Your task to perform on an android device: Go to battery settings Image 0: 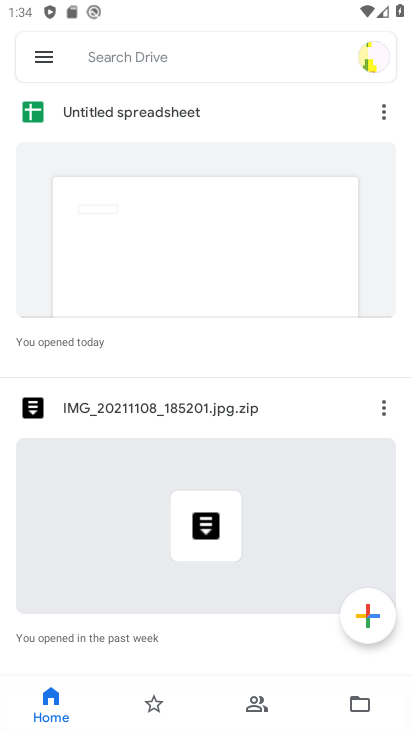
Step 0: press back button
Your task to perform on an android device: Go to battery settings Image 1: 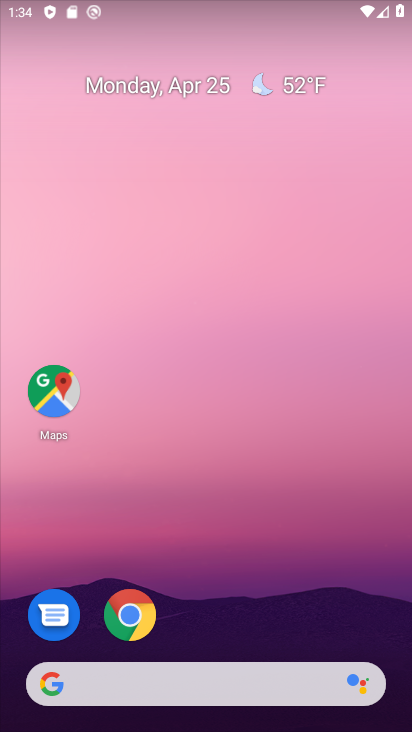
Step 1: drag from (192, 537) to (213, 49)
Your task to perform on an android device: Go to battery settings Image 2: 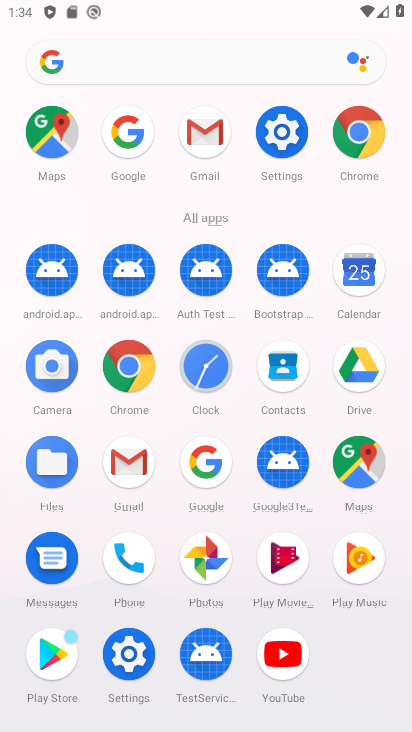
Step 2: click (281, 129)
Your task to perform on an android device: Go to battery settings Image 3: 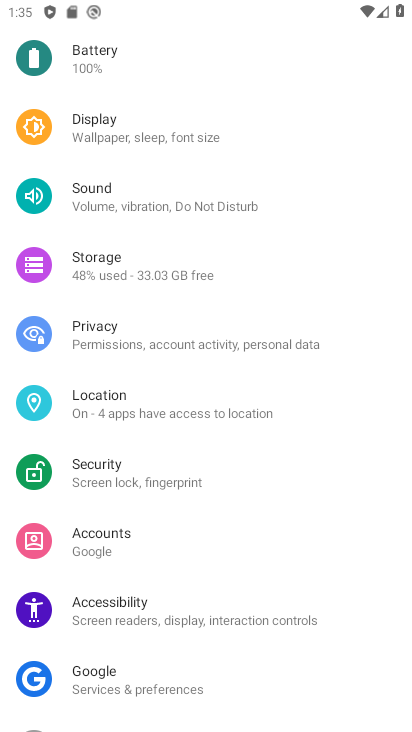
Step 3: drag from (251, 255) to (278, 359)
Your task to perform on an android device: Go to battery settings Image 4: 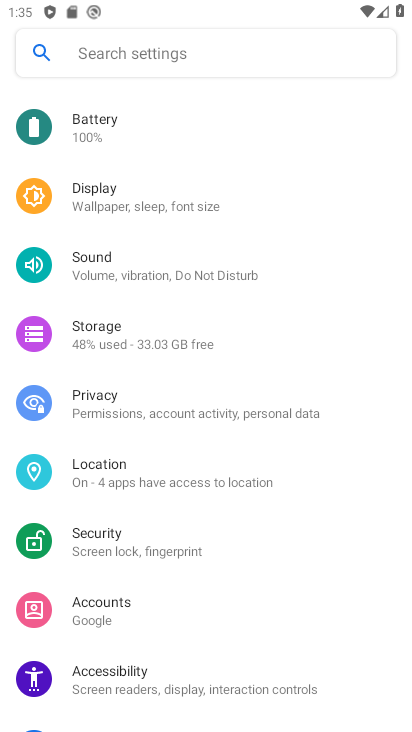
Step 4: drag from (254, 239) to (266, 328)
Your task to perform on an android device: Go to battery settings Image 5: 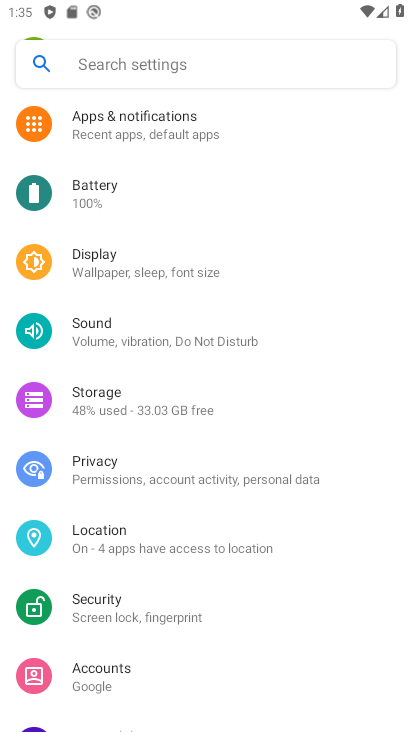
Step 5: click (92, 193)
Your task to perform on an android device: Go to battery settings Image 6: 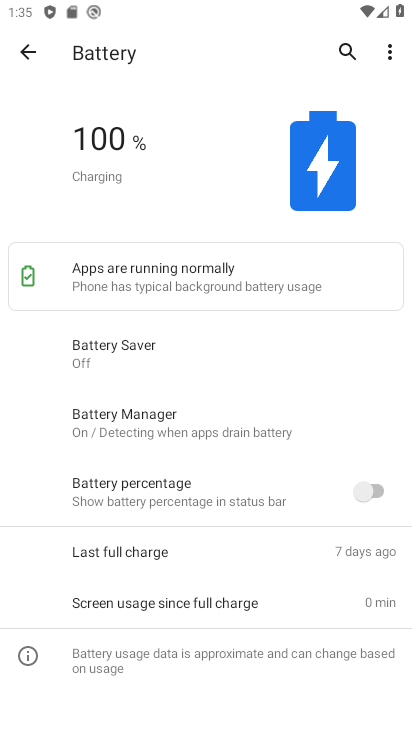
Step 6: task complete